Your task to perform on an android device: See recent photos Image 0: 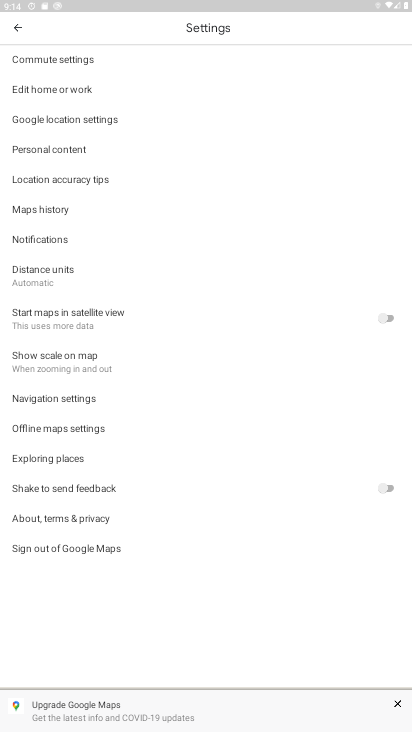
Step 0: press home button
Your task to perform on an android device: See recent photos Image 1: 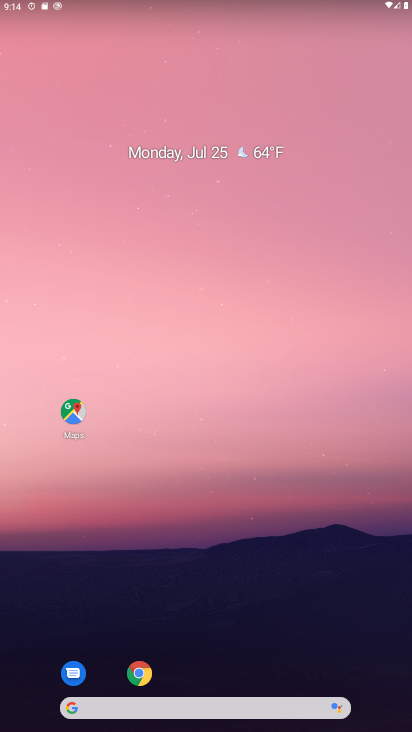
Step 1: drag from (223, 679) to (229, 51)
Your task to perform on an android device: See recent photos Image 2: 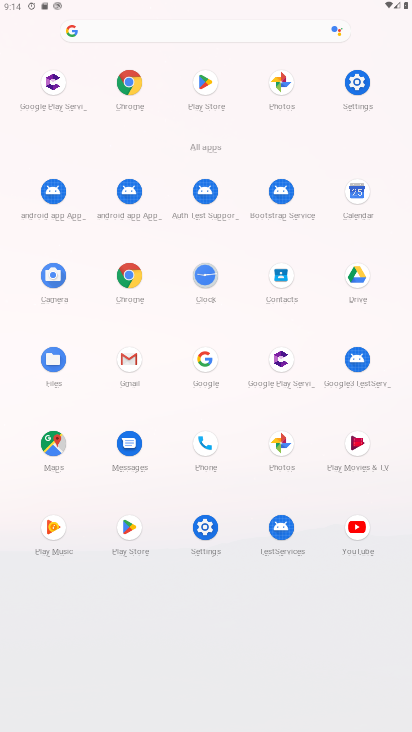
Step 2: click (283, 79)
Your task to perform on an android device: See recent photos Image 3: 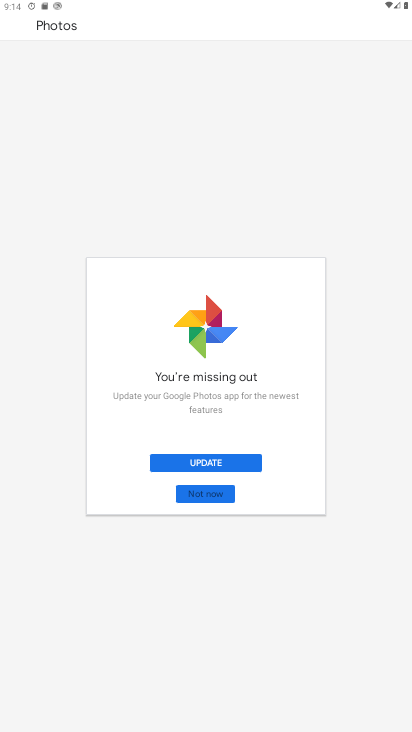
Step 3: click (223, 462)
Your task to perform on an android device: See recent photos Image 4: 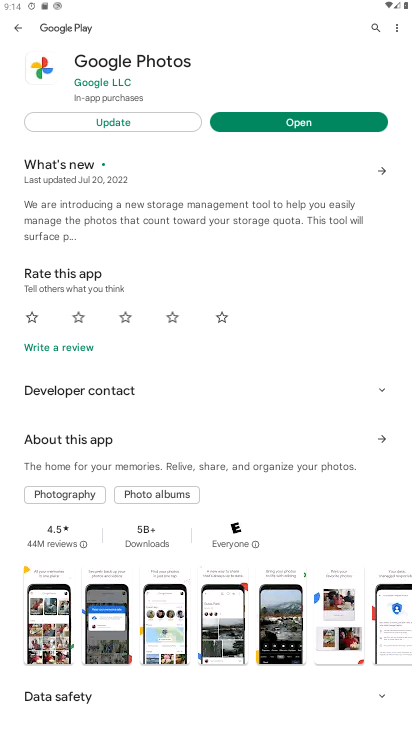
Step 4: click (118, 117)
Your task to perform on an android device: See recent photos Image 5: 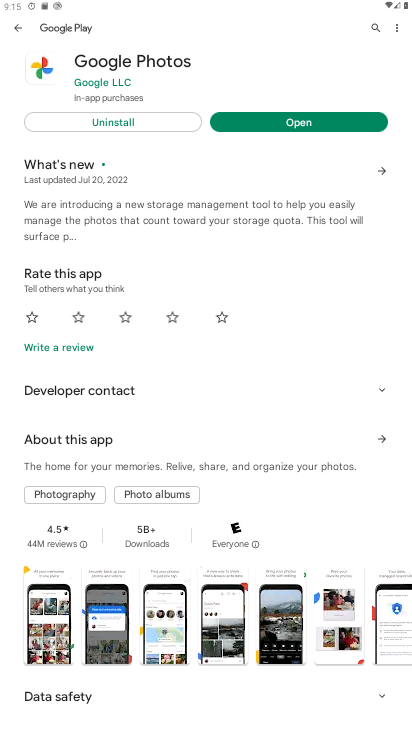
Step 5: click (296, 121)
Your task to perform on an android device: See recent photos Image 6: 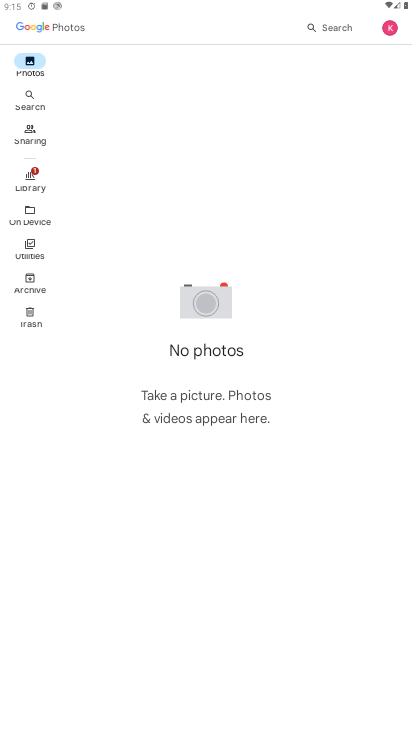
Step 6: task complete